Your task to perform on an android device: change alarm snooze length Image 0: 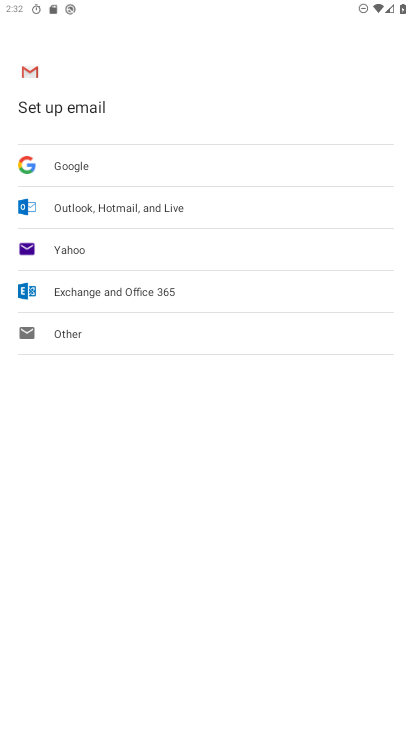
Step 0: press home button
Your task to perform on an android device: change alarm snooze length Image 1: 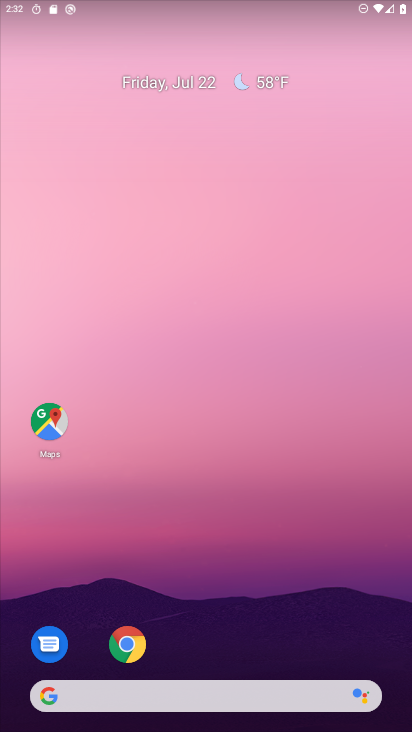
Step 1: drag from (210, 636) to (211, 166)
Your task to perform on an android device: change alarm snooze length Image 2: 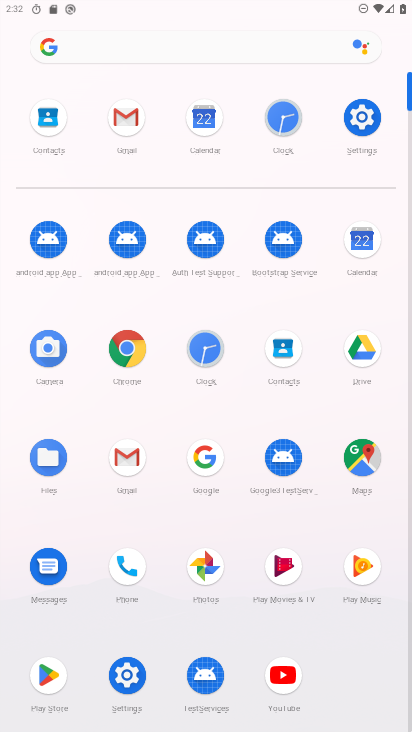
Step 2: click (285, 136)
Your task to perform on an android device: change alarm snooze length Image 3: 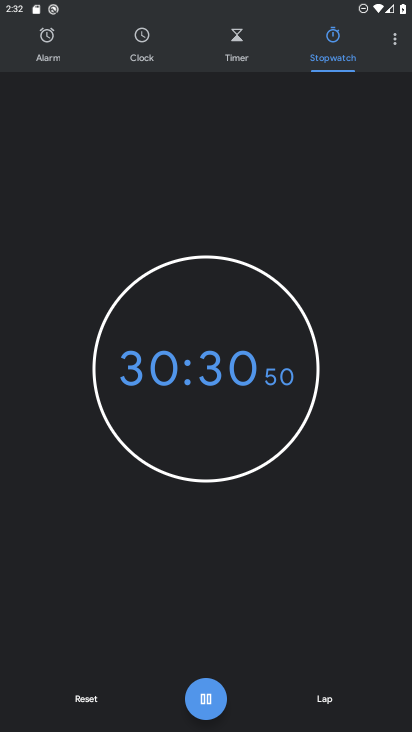
Step 3: click (390, 32)
Your task to perform on an android device: change alarm snooze length Image 4: 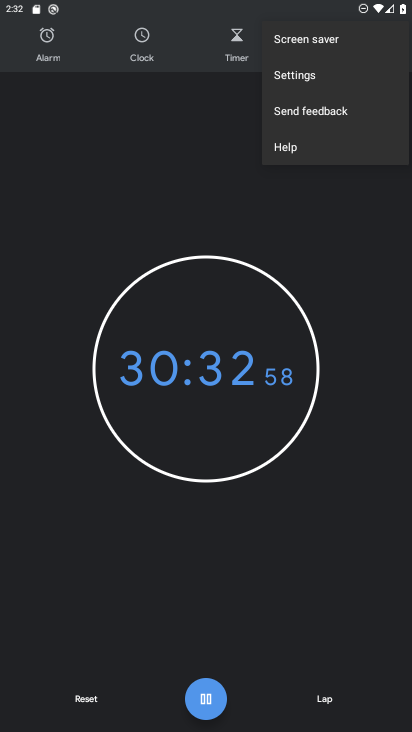
Step 4: click (356, 86)
Your task to perform on an android device: change alarm snooze length Image 5: 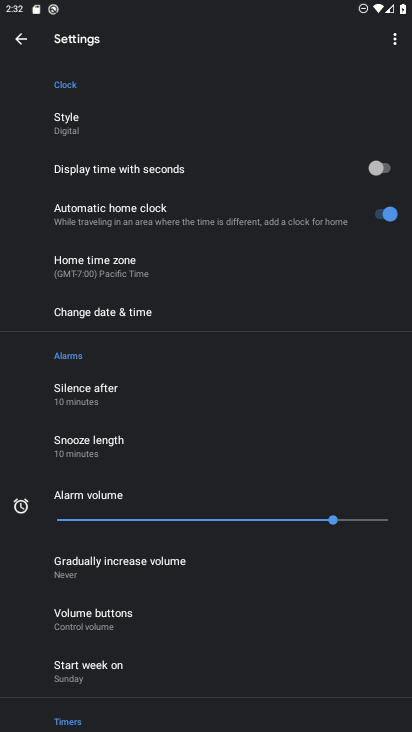
Step 5: click (128, 448)
Your task to perform on an android device: change alarm snooze length Image 6: 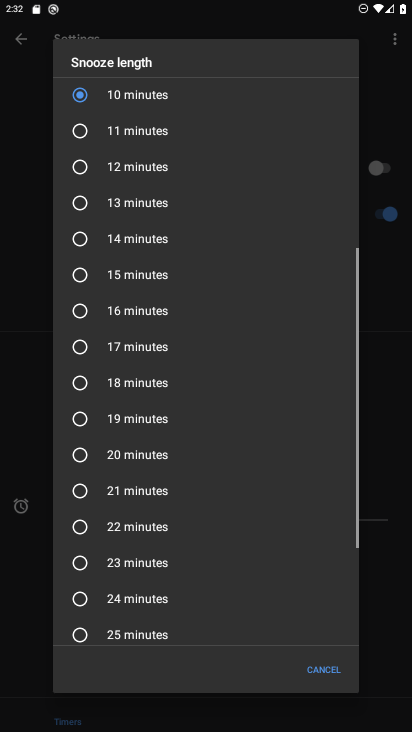
Step 6: click (128, 448)
Your task to perform on an android device: change alarm snooze length Image 7: 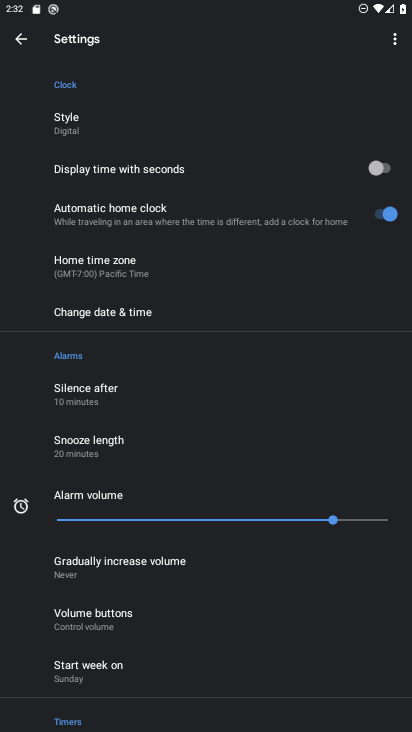
Step 7: task complete